Your task to perform on an android device: turn on data saver in the chrome app Image 0: 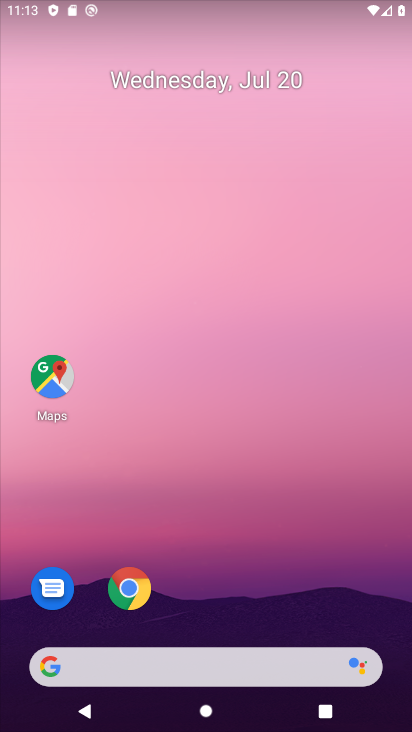
Step 0: press home button
Your task to perform on an android device: turn on data saver in the chrome app Image 1: 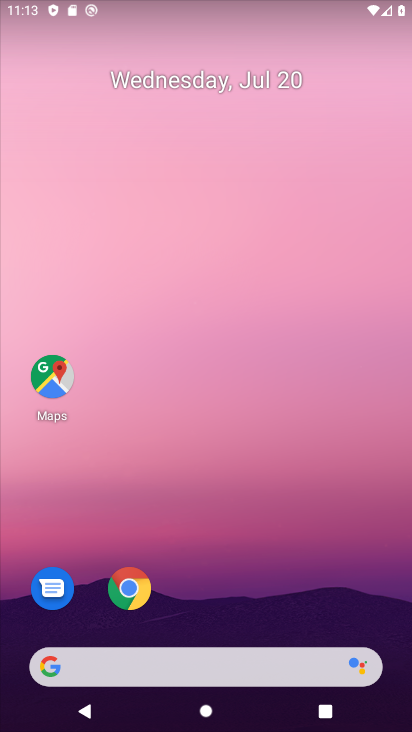
Step 1: click (134, 588)
Your task to perform on an android device: turn on data saver in the chrome app Image 2: 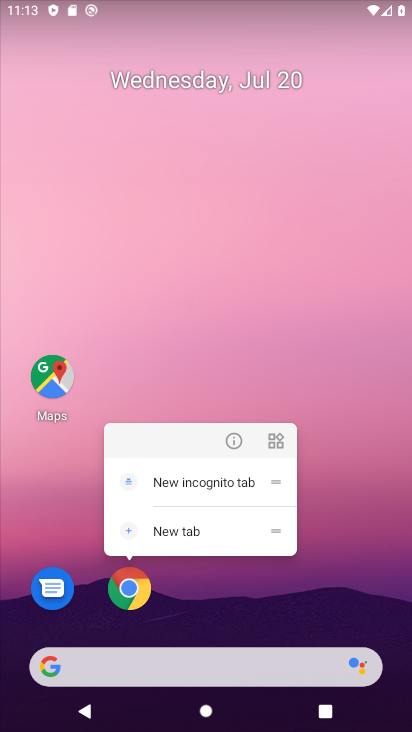
Step 2: click (134, 588)
Your task to perform on an android device: turn on data saver in the chrome app Image 3: 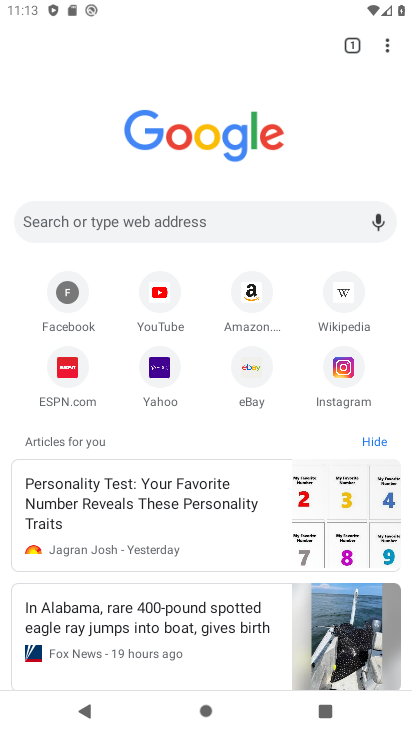
Step 3: drag from (386, 49) to (234, 373)
Your task to perform on an android device: turn on data saver in the chrome app Image 4: 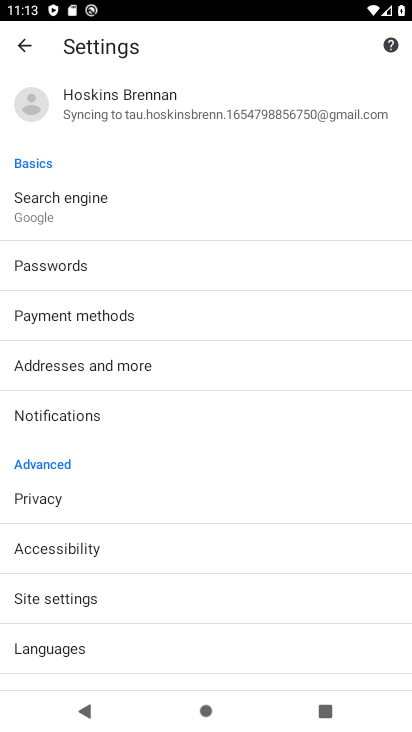
Step 4: drag from (127, 457) to (197, 168)
Your task to perform on an android device: turn on data saver in the chrome app Image 5: 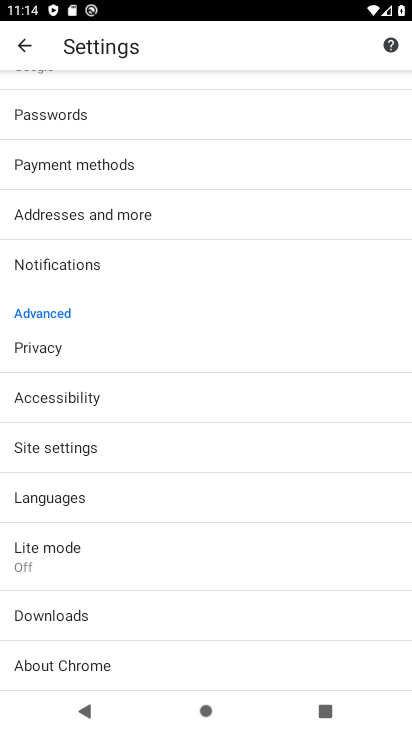
Step 5: click (72, 550)
Your task to perform on an android device: turn on data saver in the chrome app Image 6: 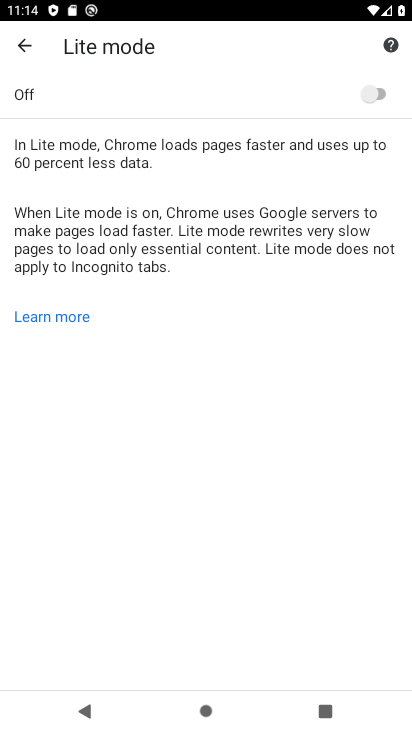
Step 6: click (373, 86)
Your task to perform on an android device: turn on data saver in the chrome app Image 7: 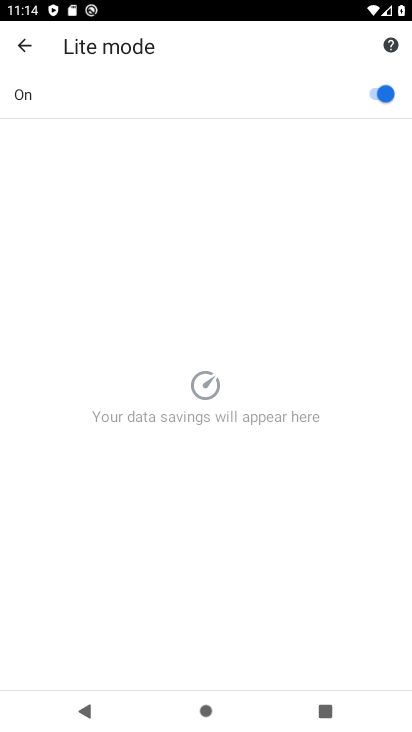
Step 7: task complete